Your task to perform on an android device: Go to internet settings Image 0: 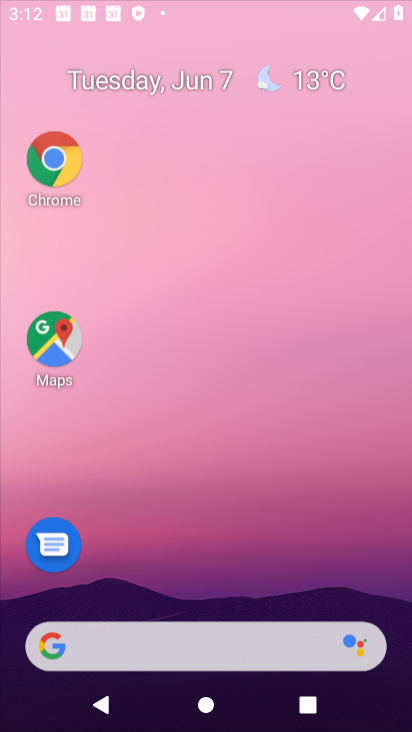
Step 0: drag from (189, 557) to (221, 30)
Your task to perform on an android device: Go to internet settings Image 1: 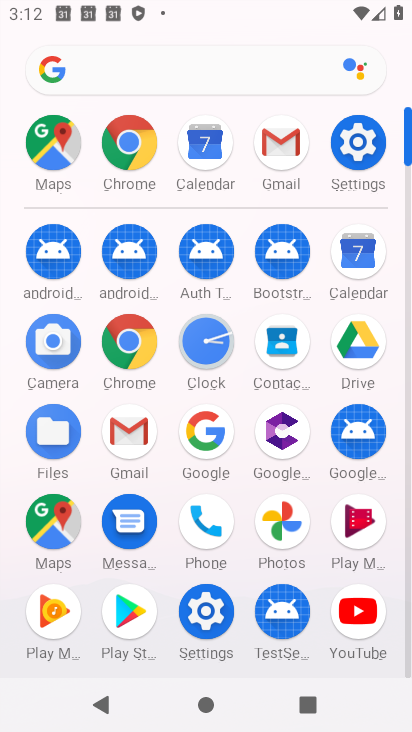
Step 1: drag from (175, 568) to (228, 162)
Your task to perform on an android device: Go to internet settings Image 2: 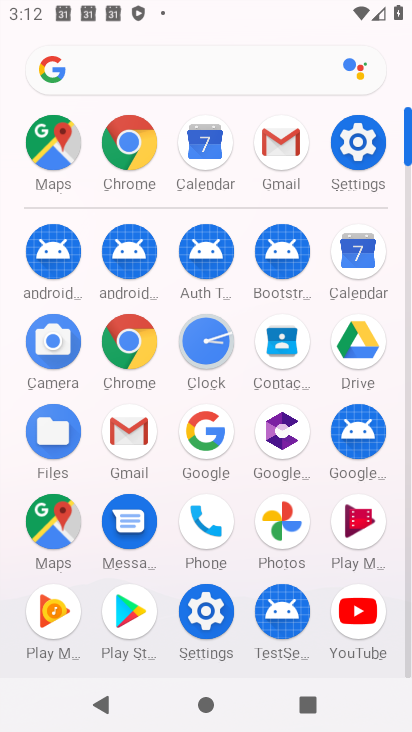
Step 2: click (190, 616)
Your task to perform on an android device: Go to internet settings Image 3: 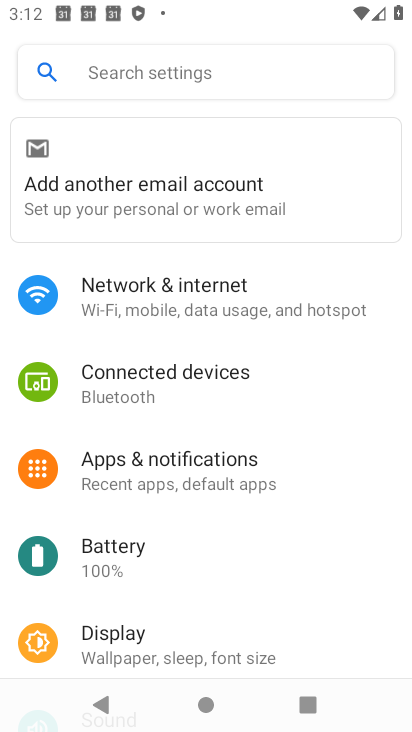
Step 3: drag from (187, 514) to (254, 47)
Your task to perform on an android device: Go to internet settings Image 4: 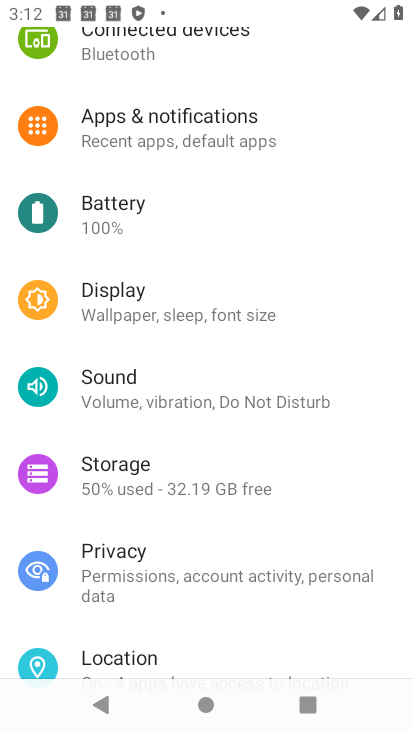
Step 4: drag from (244, 140) to (299, 635)
Your task to perform on an android device: Go to internet settings Image 5: 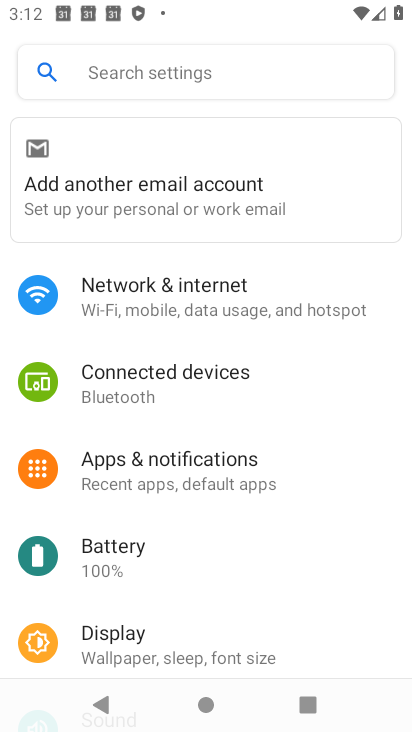
Step 5: click (151, 302)
Your task to perform on an android device: Go to internet settings Image 6: 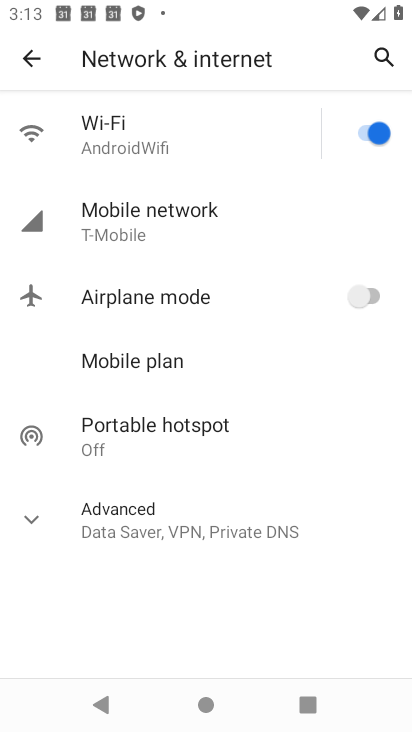
Step 6: task complete